Your task to perform on an android device: Go to internet settings Image 0: 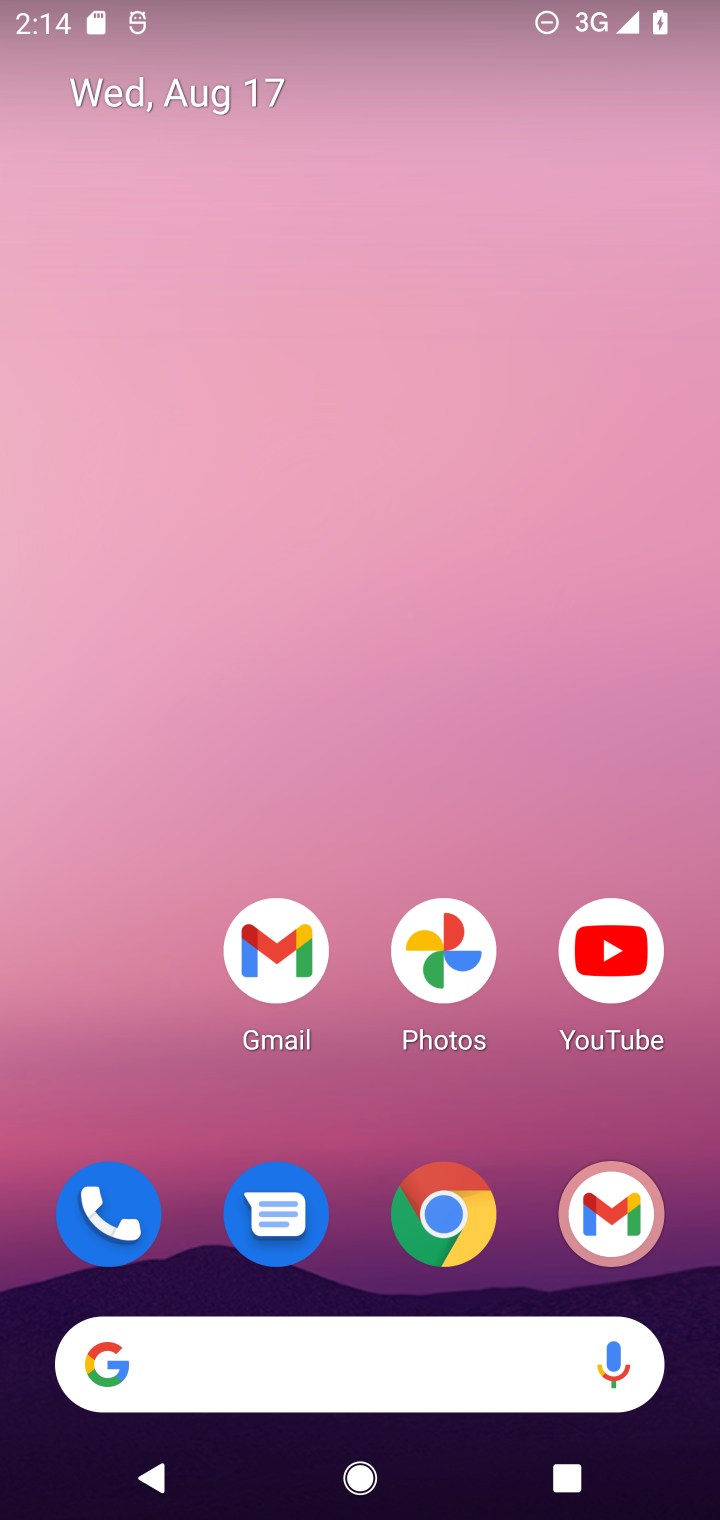
Step 0: press home button
Your task to perform on an android device: Go to internet settings Image 1: 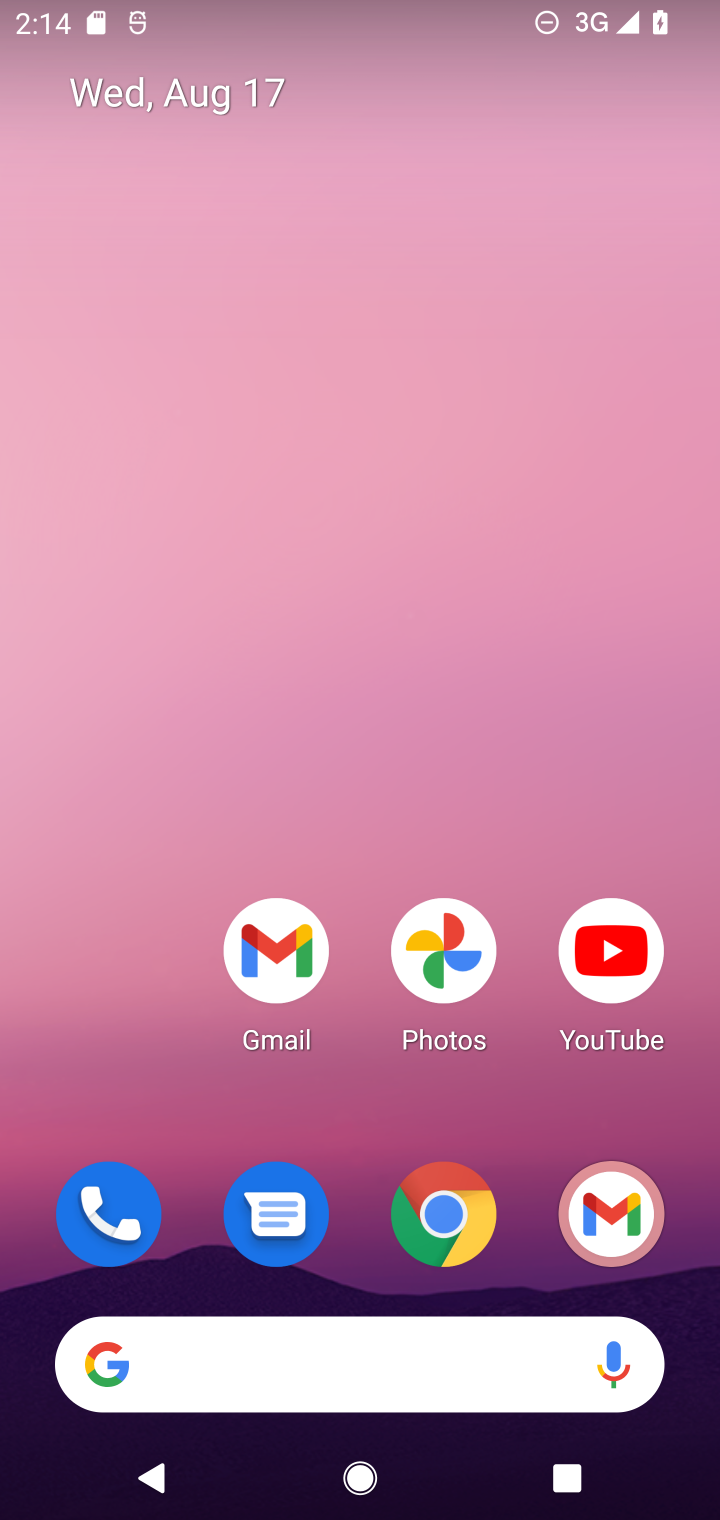
Step 1: drag from (361, 1284) to (265, 164)
Your task to perform on an android device: Go to internet settings Image 2: 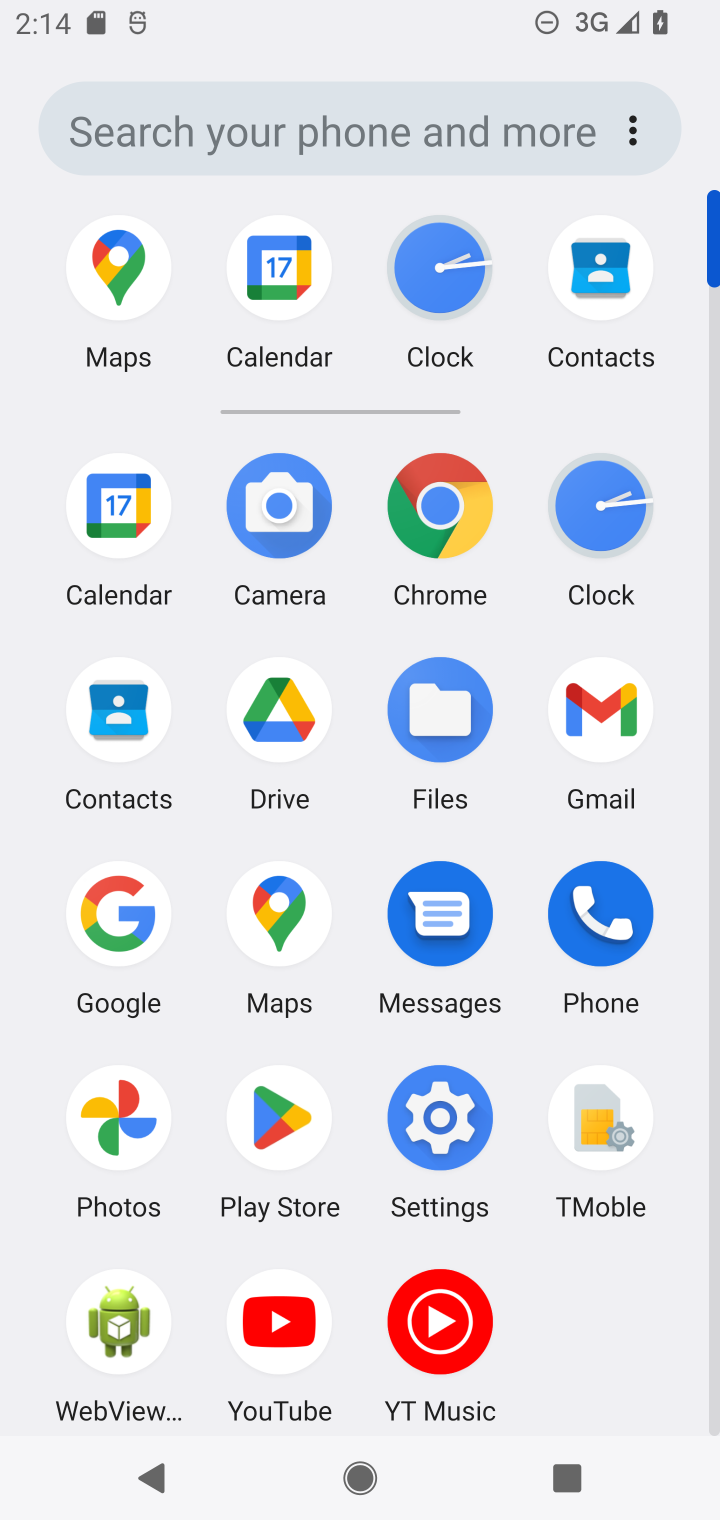
Step 2: click (434, 1119)
Your task to perform on an android device: Go to internet settings Image 3: 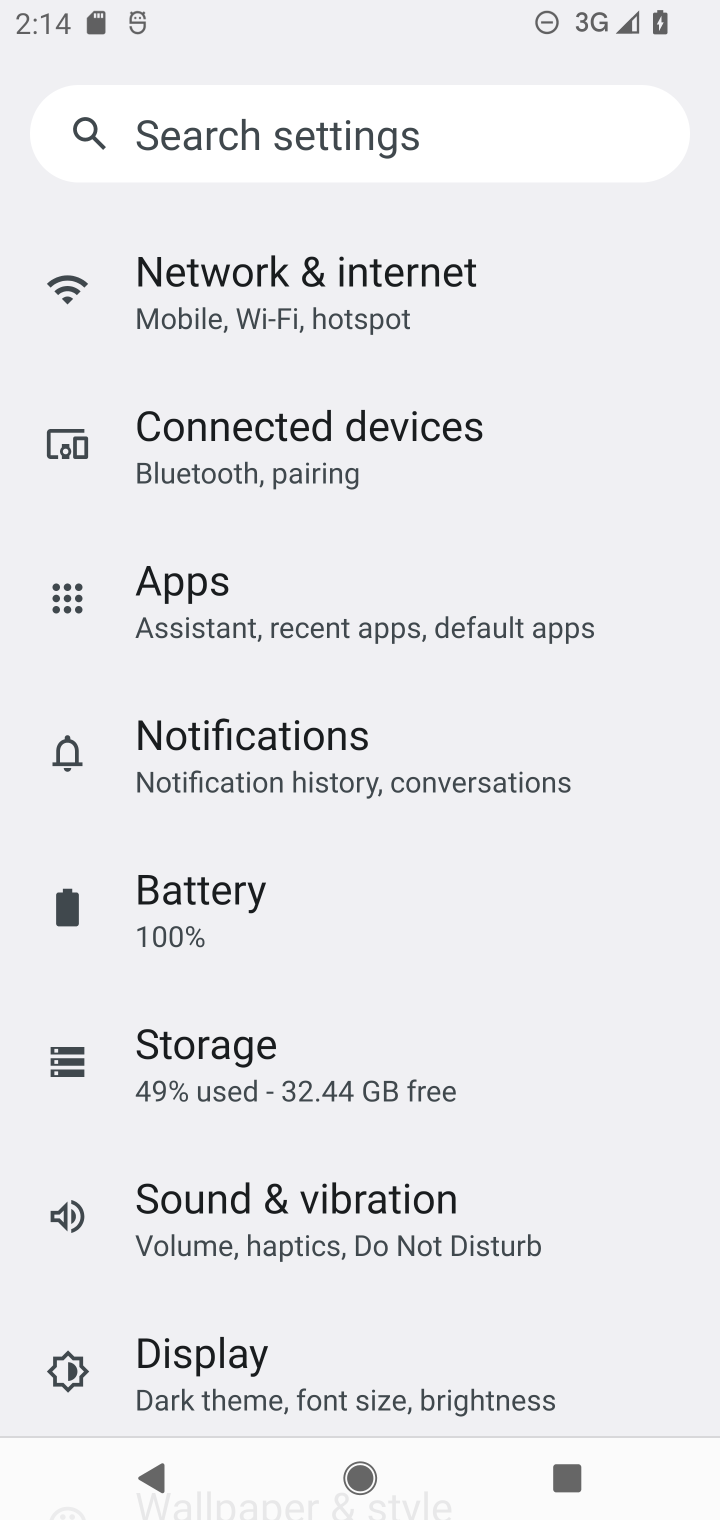
Step 3: click (284, 265)
Your task to perform on an android device: Go to internet settings Image 4: 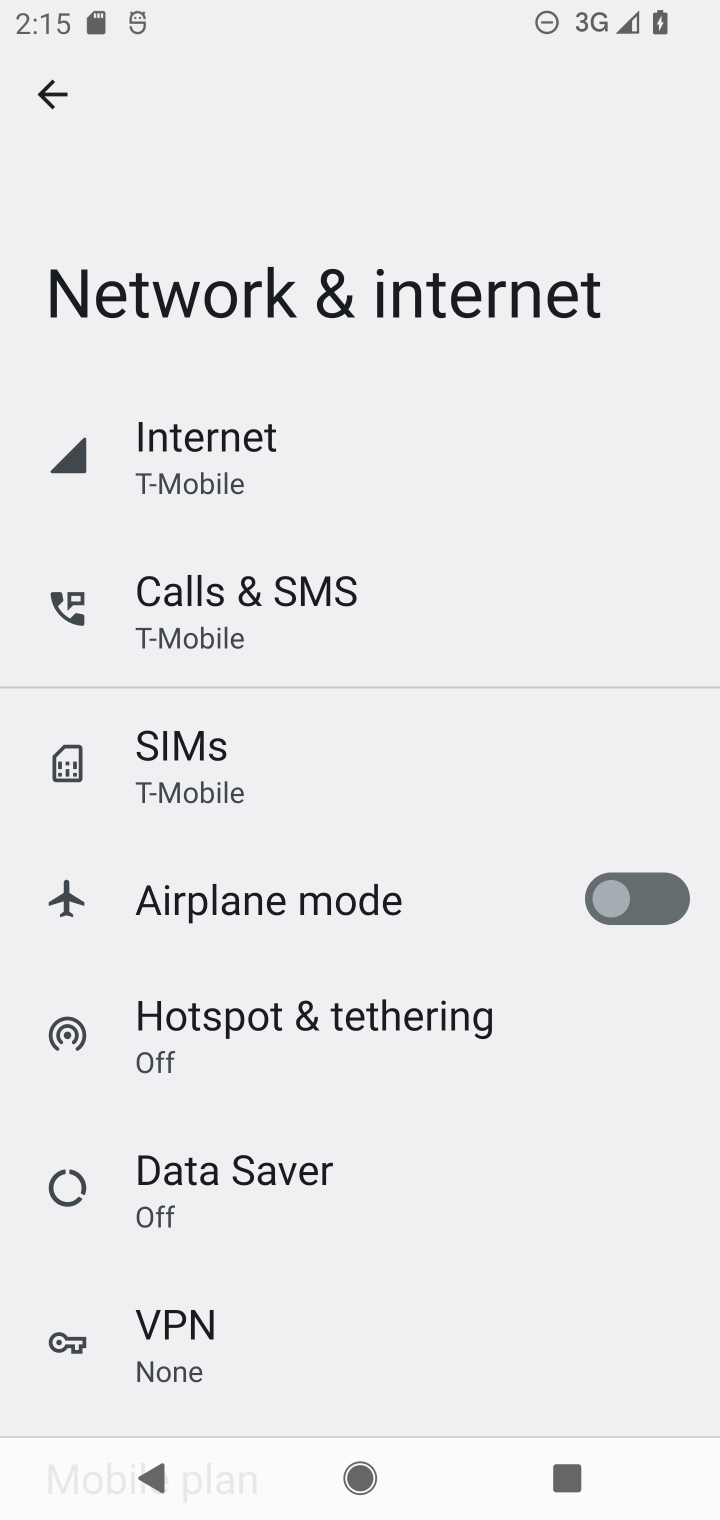
Step 4: click (223, 429)
Your task to perform on an android device: Go to internet settings Image 5: 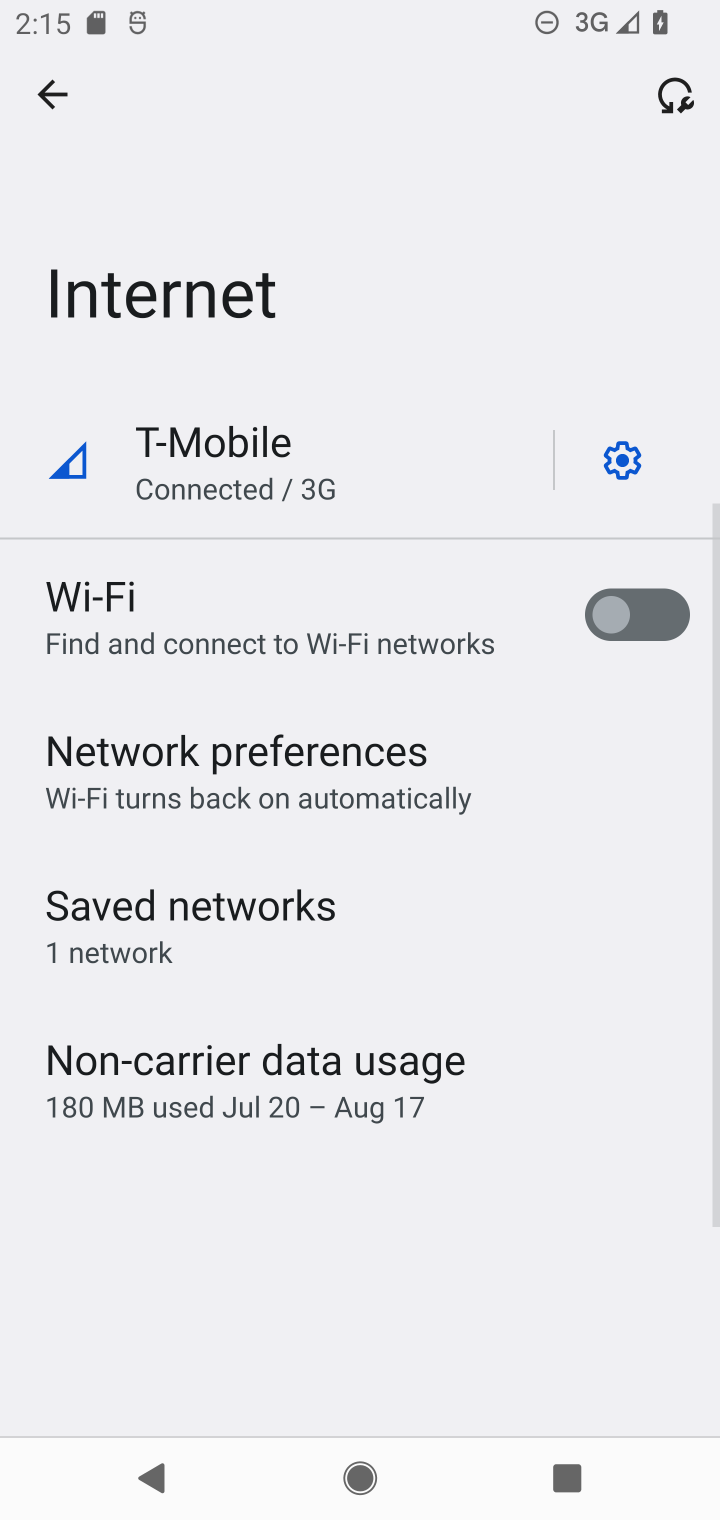
Step 5: task complete